Your task to perform on an android device: Check the weather Image 0: 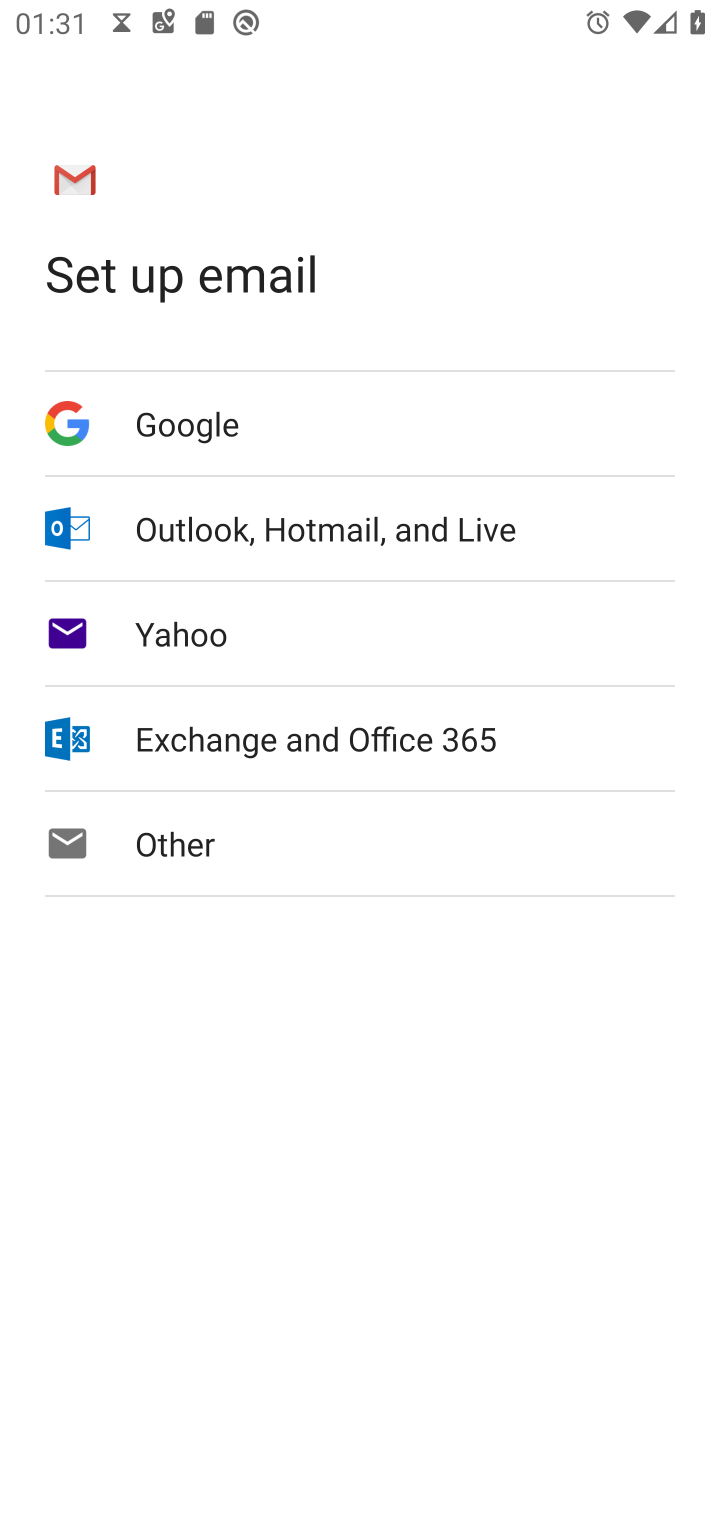
Step 0: press home button
Your task to perform on an android device: Check the weather Image 1: 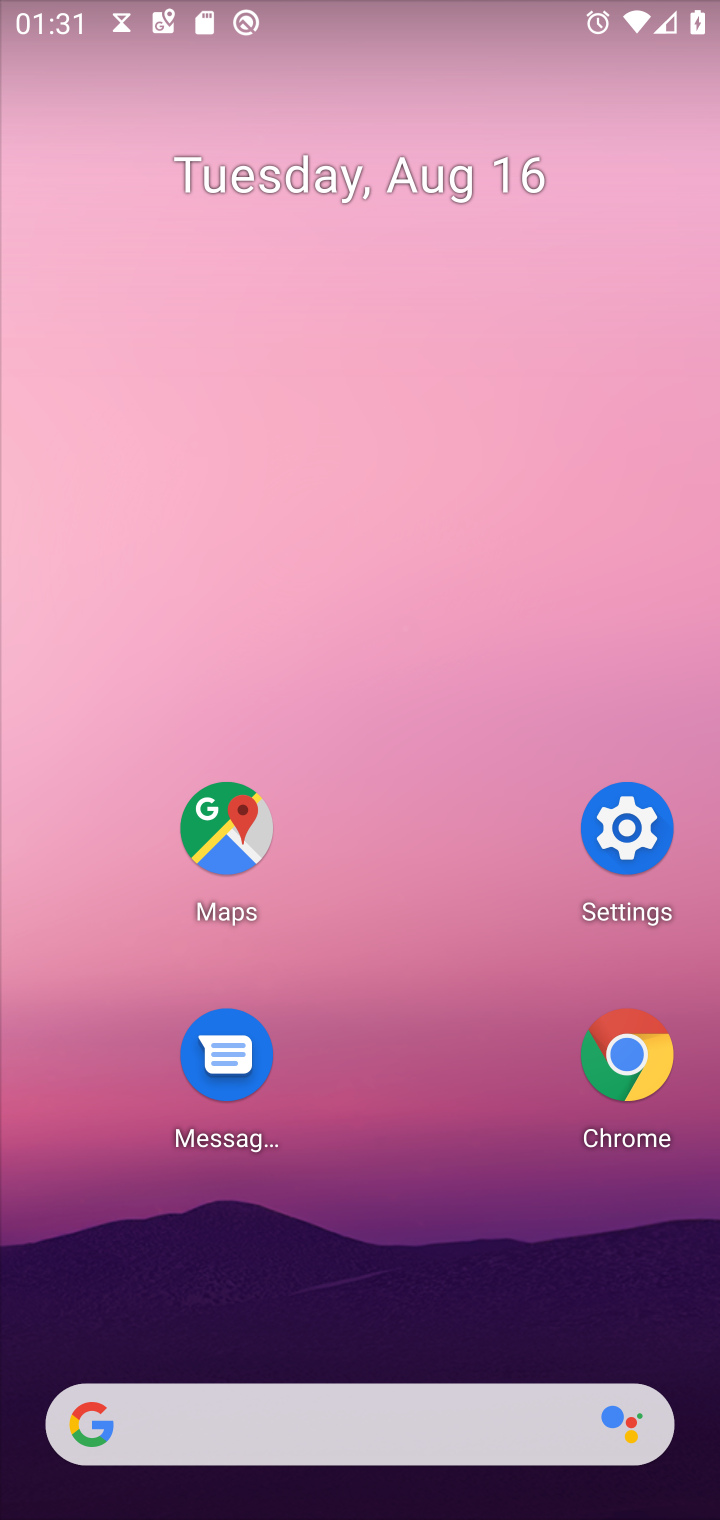
Step 1: click (254, 1409)
Your task to perform on an android device: Check the weather Image 2: 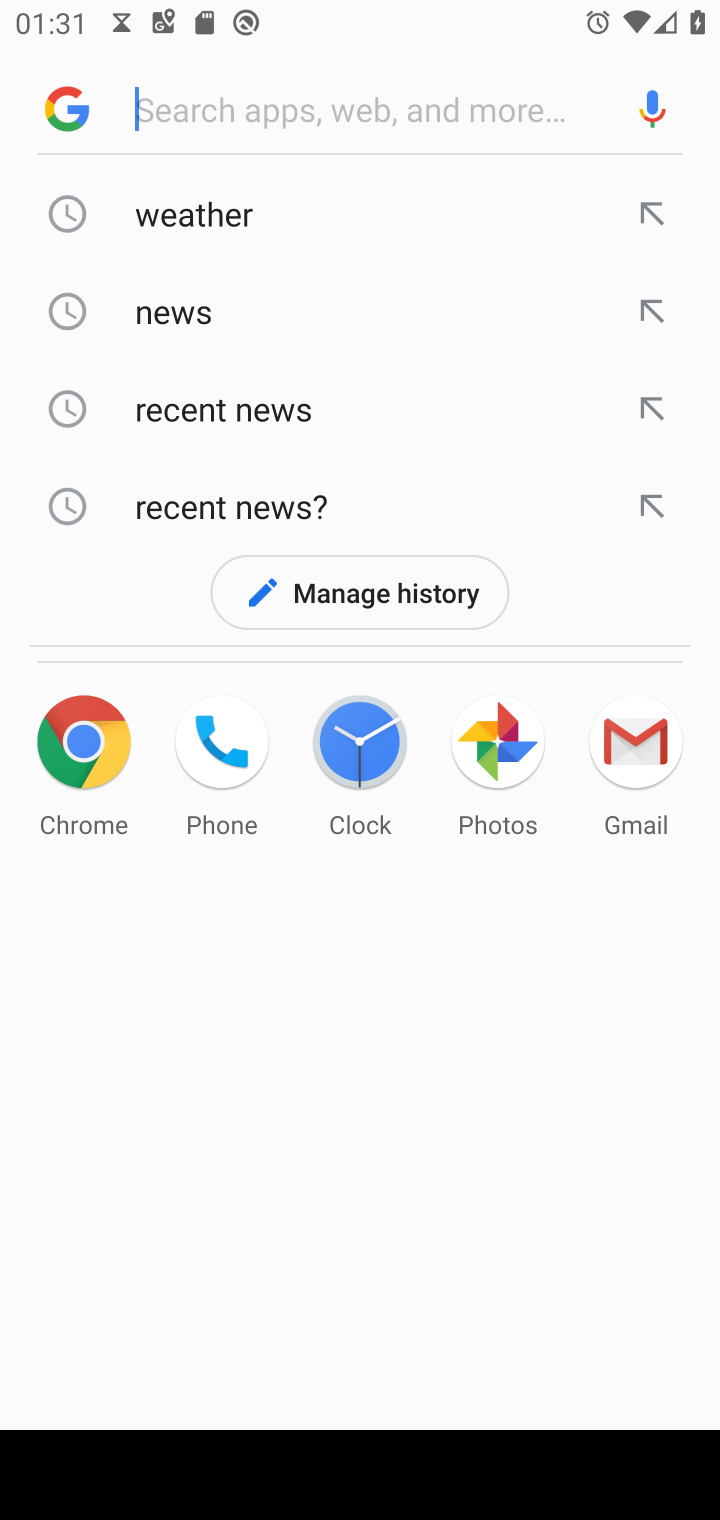
Step 2: click (180, 212)
Your task to perform on an android device: Check the weather Image 3: 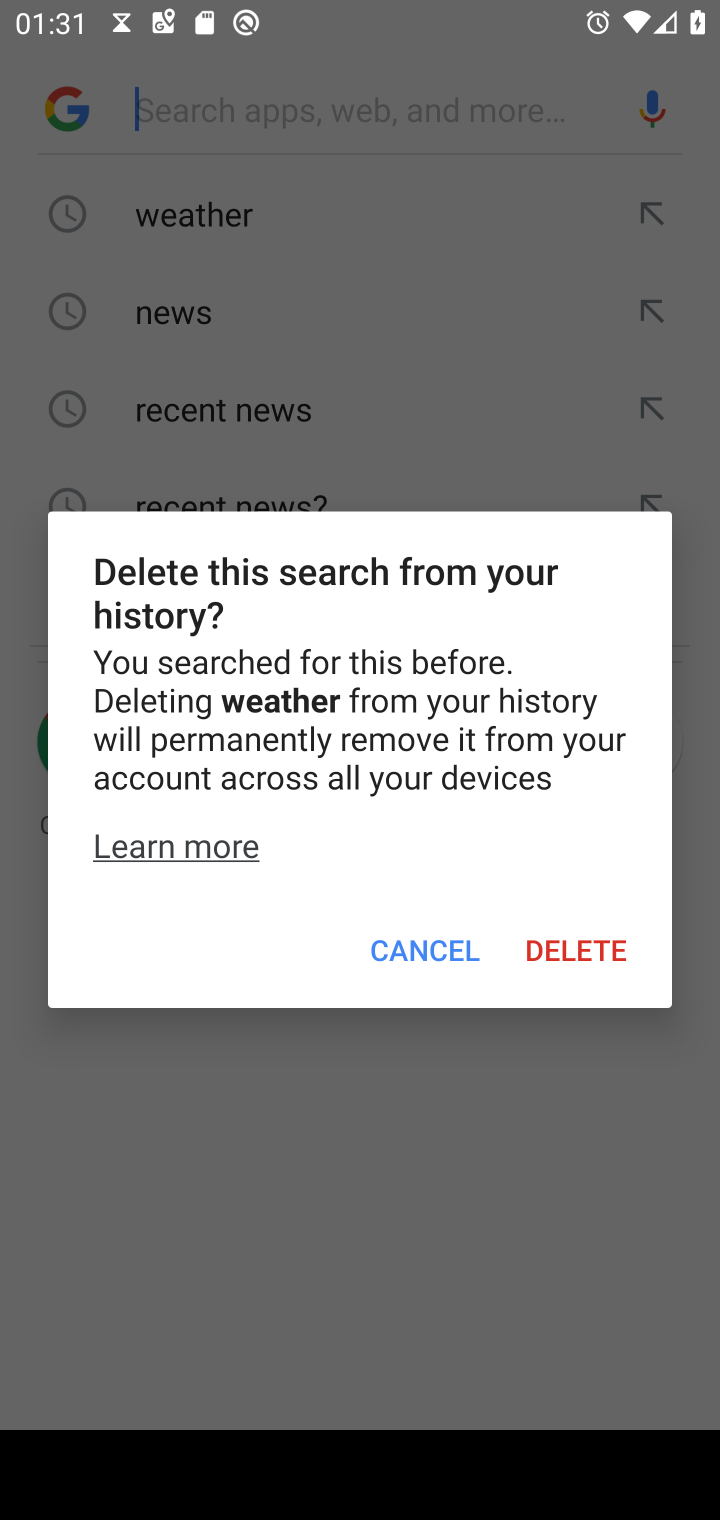
Step 3: click (397, 961)
Your task to perform on an android device: Check the weather Image 4: 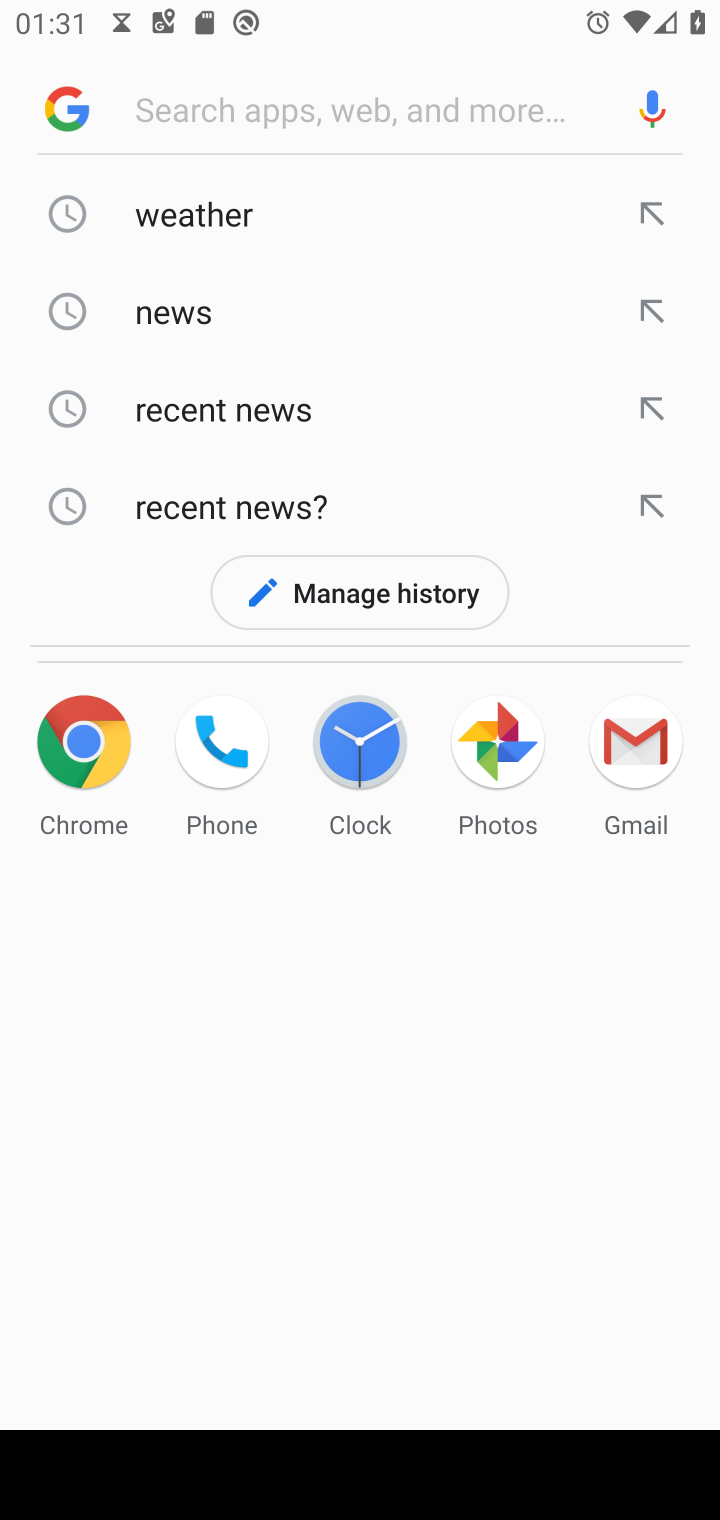
Step 4: click (135, 208)
Your task to perform on an android device: Check the weather Image 5: 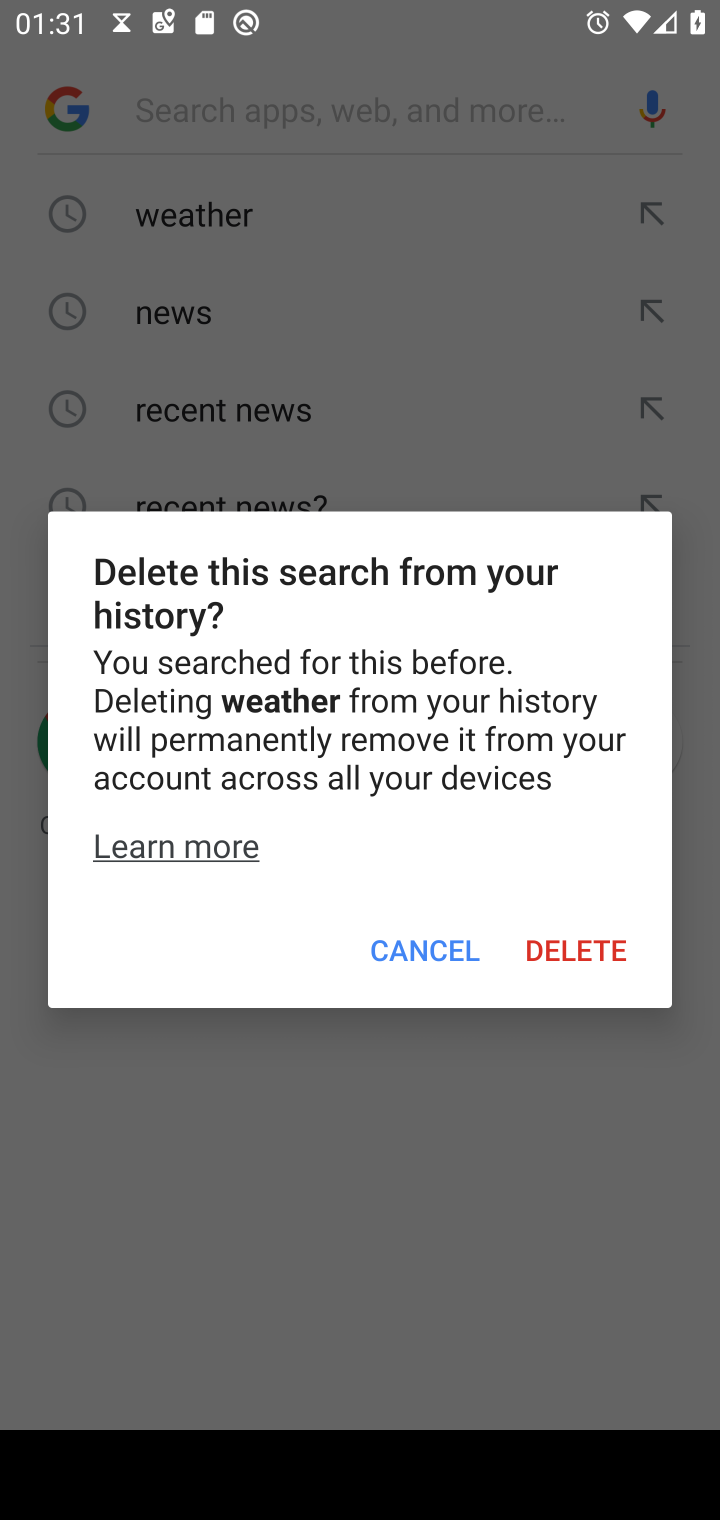
Step 5: click (455, 950)
Your task to perform on an android device: Check the weather Image 6: 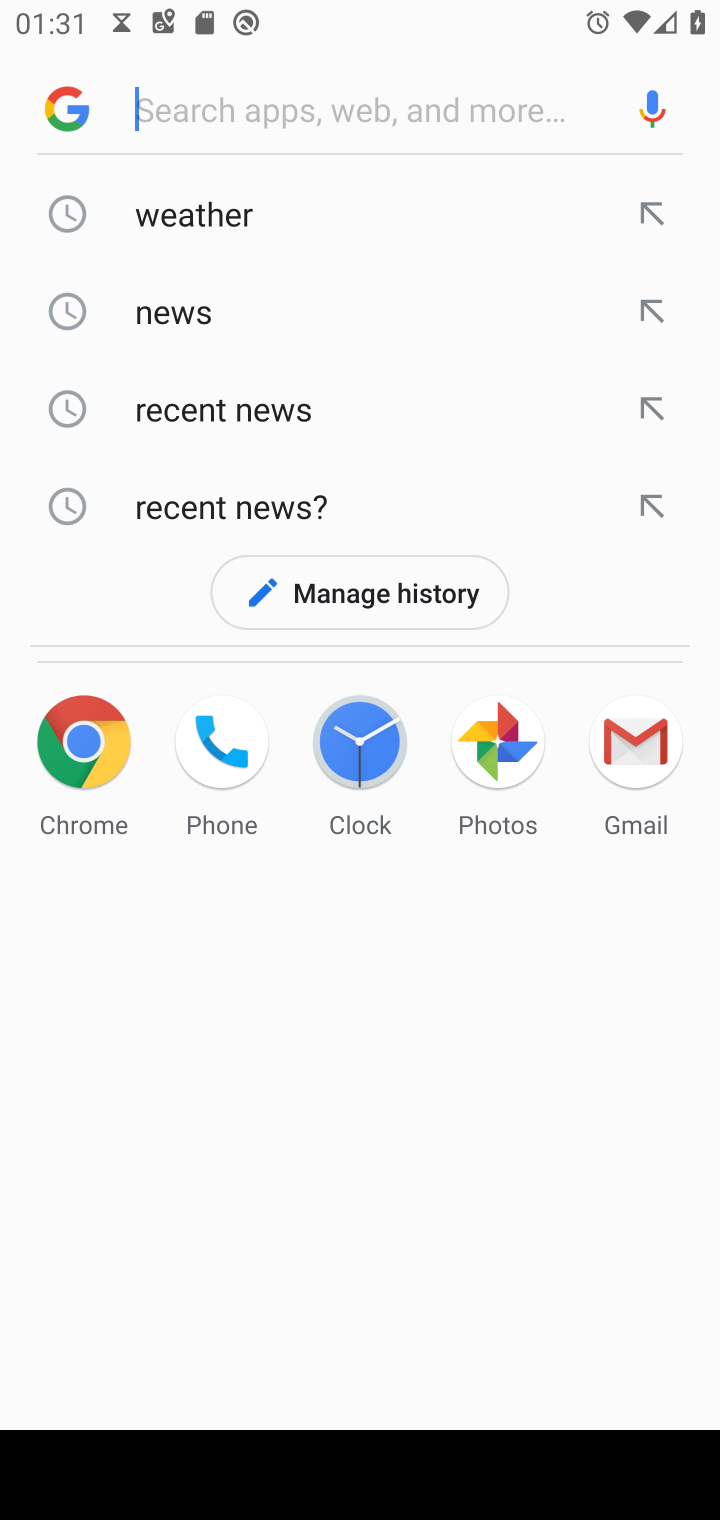
Step 6: click (315, 213)
Your task to perform on an android device: Check the weather Image 7: 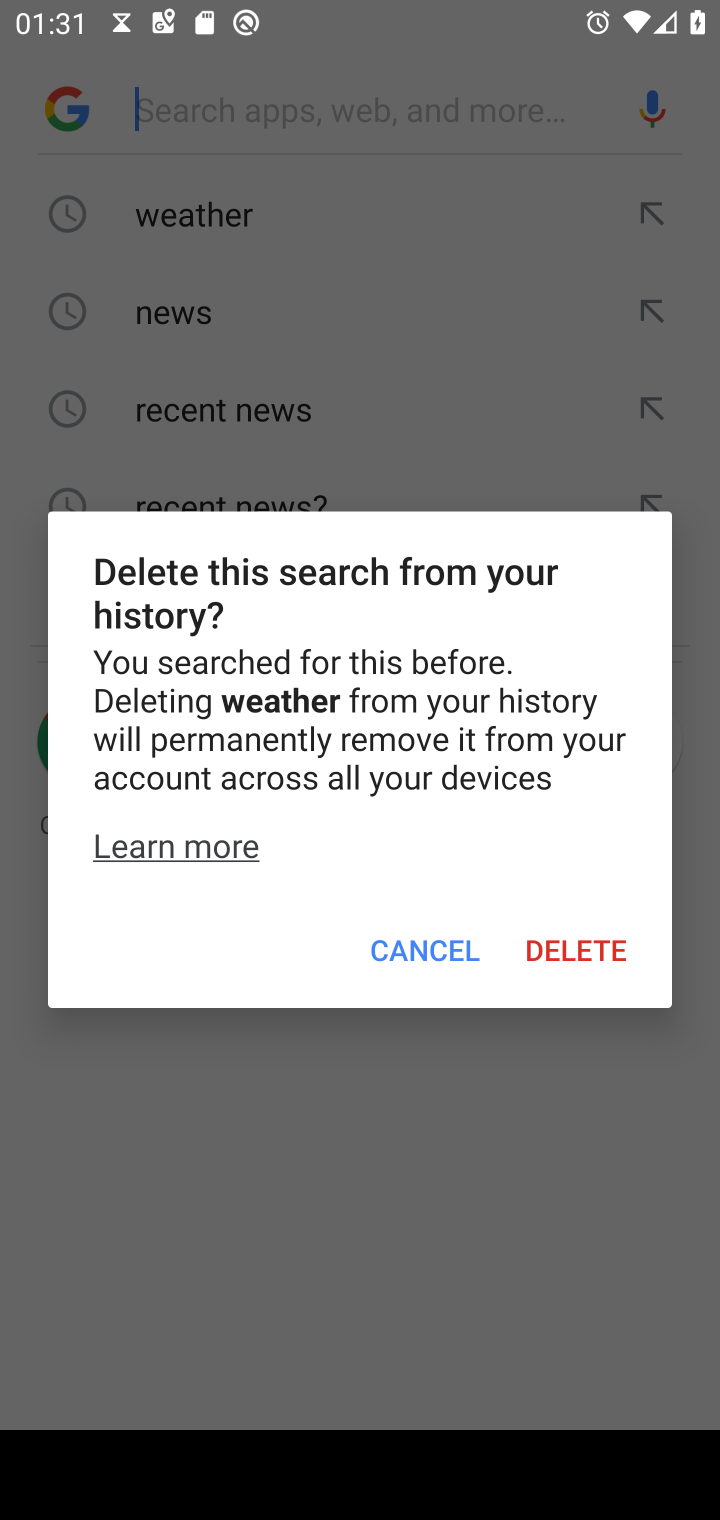
Step 7: click (408, 951)
Your task to perform on an android device: Check the weather Image 8: 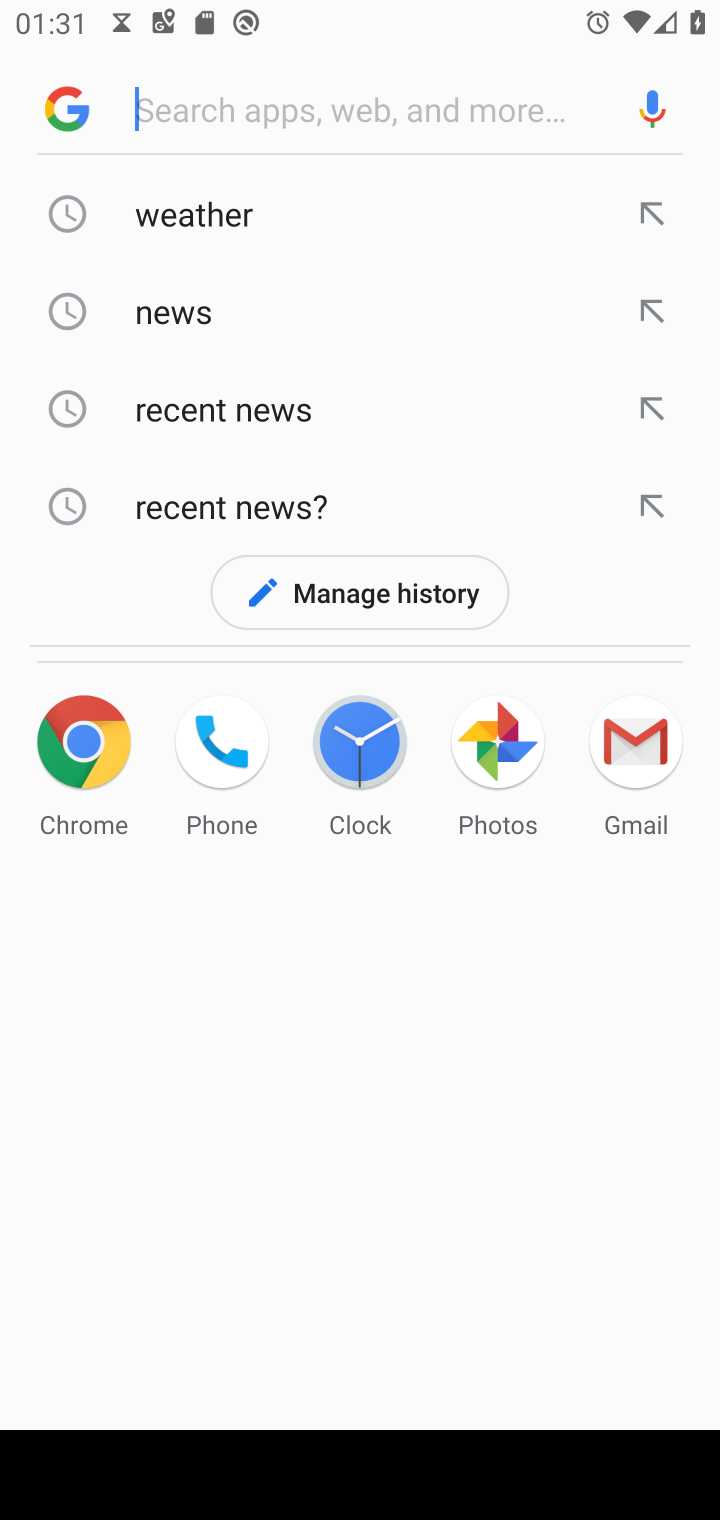
Step 8: click (241, 209)
Your task to perform on an android device: Check the weather Image 9: 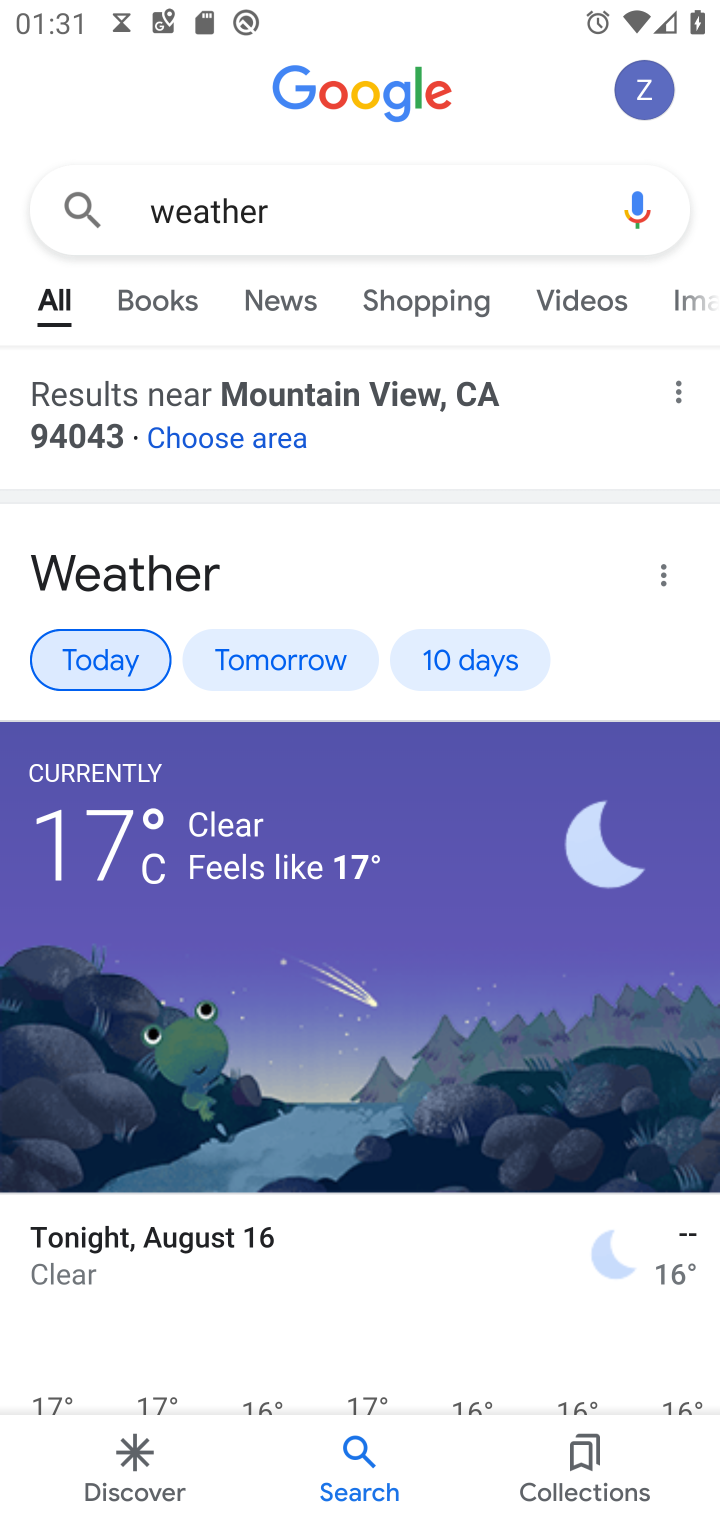
Step 9: task complete